Your task to perform on an android device: move a message to another label in the gmail app Image 0: 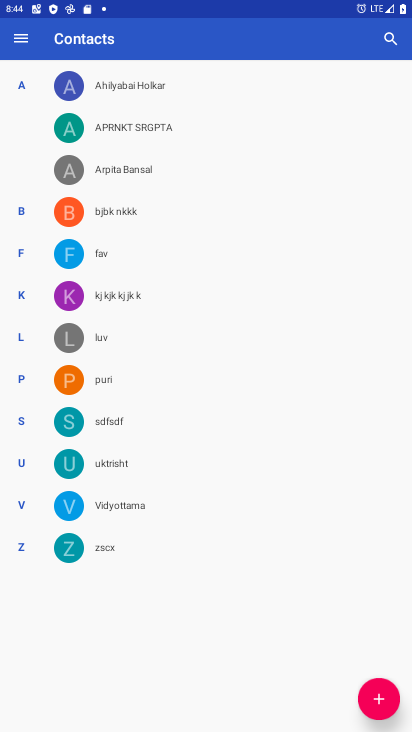
Step 0: press back button
Your task to perform on an android device: move a message to another label in the gmail app Image 1: 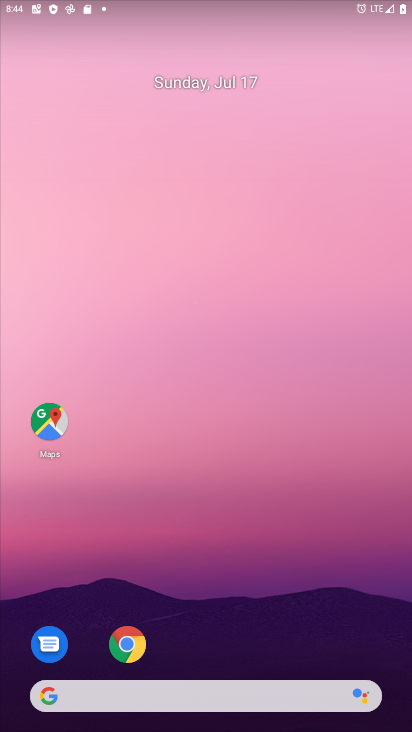
Step 1: drag from (209, 621) to (254, 186)
Your task to perform on an android device: move a message to another label in the gmail app Image 2: 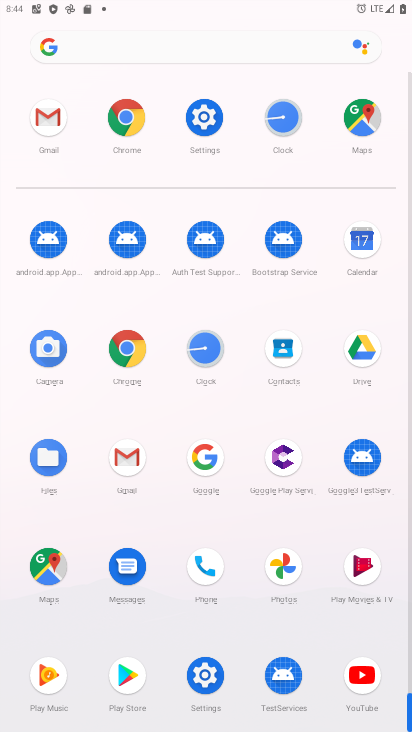
Step 2: drag from (138, 157) to (138, 62)
Your task to perform on an android device: move a message to another label in the gmail app Image 3: 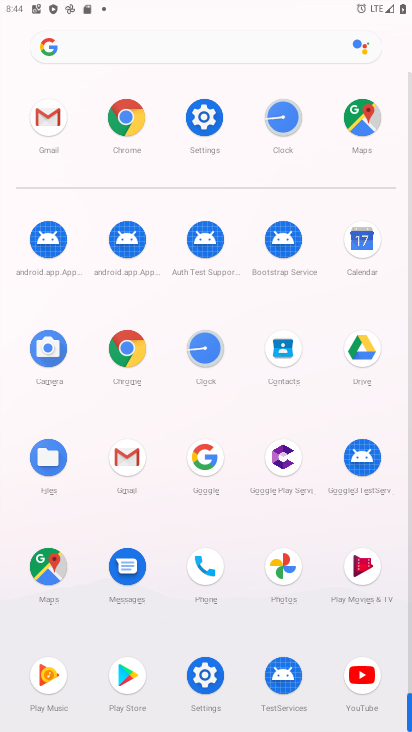
Step 3: click (123, 454)
Your task to perform on an android device: move a message to another label in the gmail app Image 4: 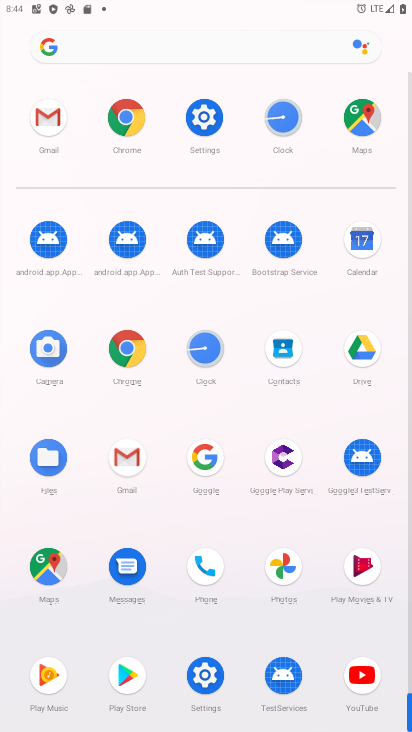
Step 4: click (123, 464)
Your task to perform on an android device: move a message to another label in the gmail app Image 5: 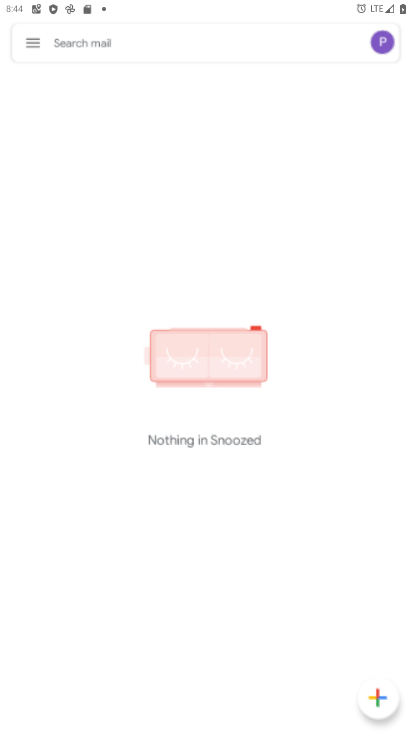
Step 5: click (130, 461)
Your task to perform on an android device: move a message to another label in the gmail app Image 6: 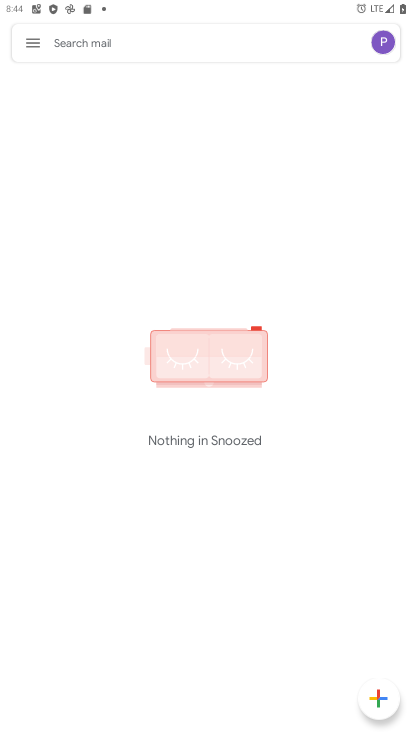
Step 6: click (131, 463)
Your task to perform on an android device: move a message to another label in the gmail app Image 7: 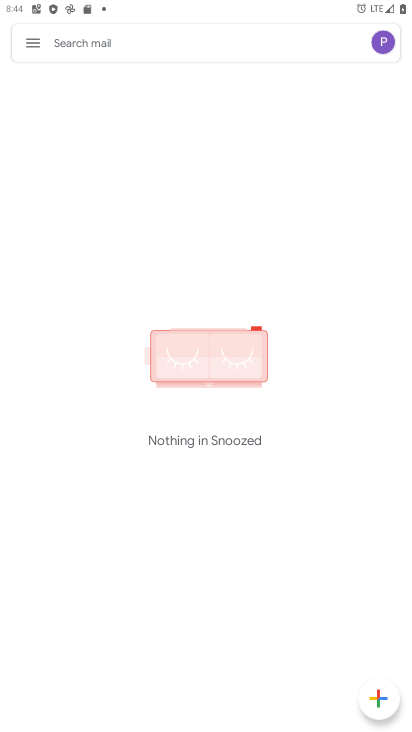
Step 7: click (132, 464)
Your task to perform on an android device: move a message to another label in the gmail app Image 8: 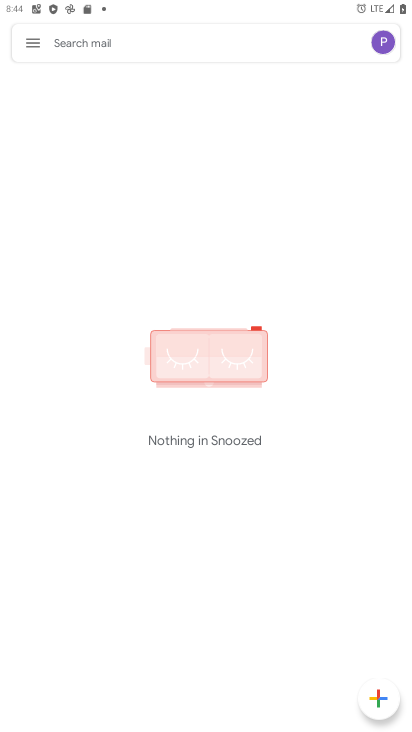
Step 8: click (27, 42)
Your task to perform on an android device: move a message to another label in the gmail app Image 9: 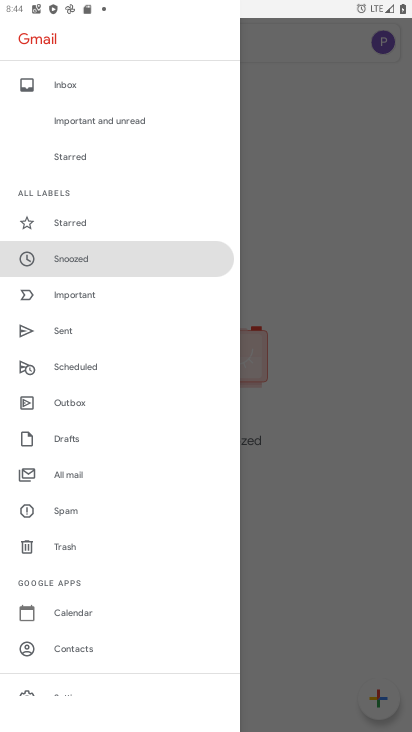
Step 9: click (67, 468)
Your task to perform on an android device: move a message to another label in the gmail app Image 10: 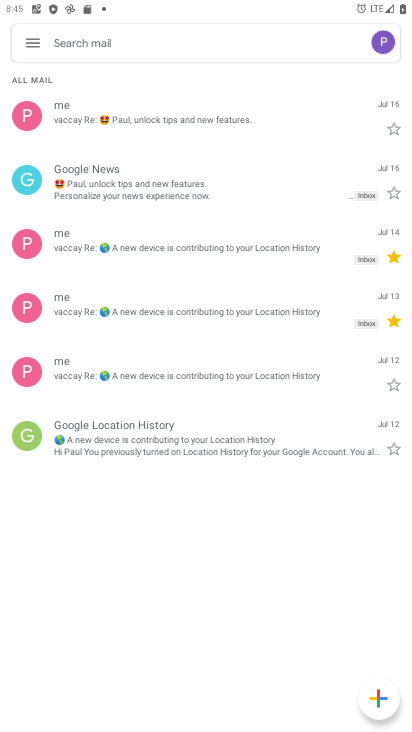
Step 10: click (88, 123)
Your task to perform on an android device: move a message to another label in the gmail app Image 11: 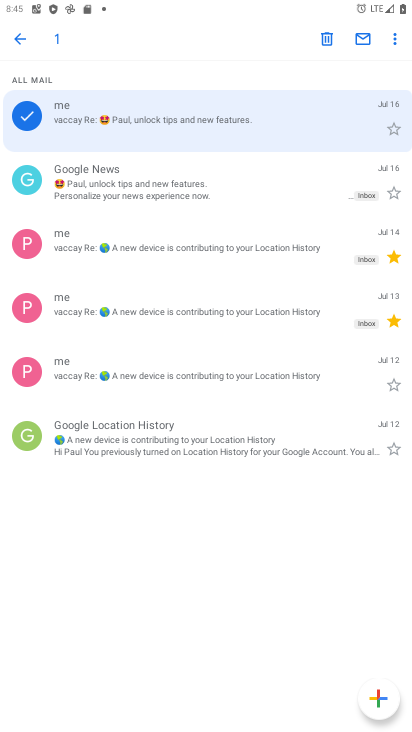
Step 11: click (394, 34)
Your task to perform on an android device: move a message to another label in the gmail app Image 12: 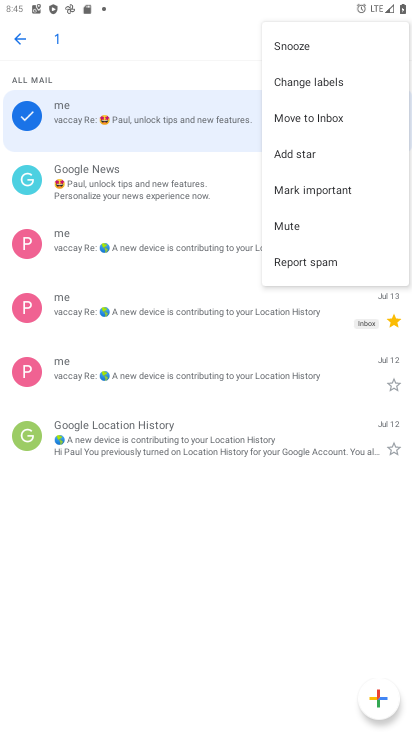
Step 12: click (314, 77)
Your task to perform on an android device: move a message to another label in the gmail app Image 13: 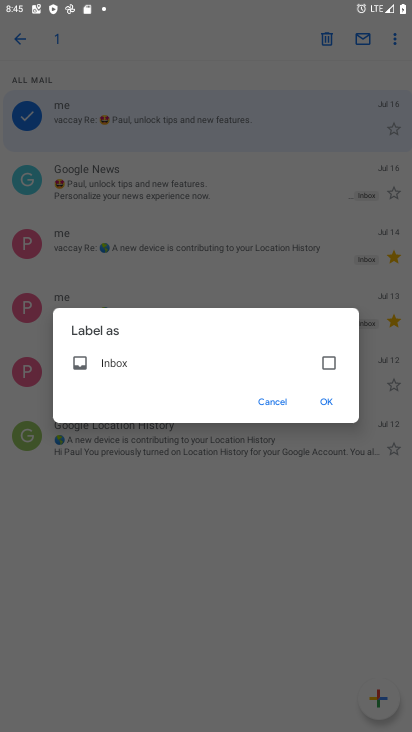
Step 13: click (333, 404)
Your task to perform on an android device: move a message to another label in the gmail app Image 14: 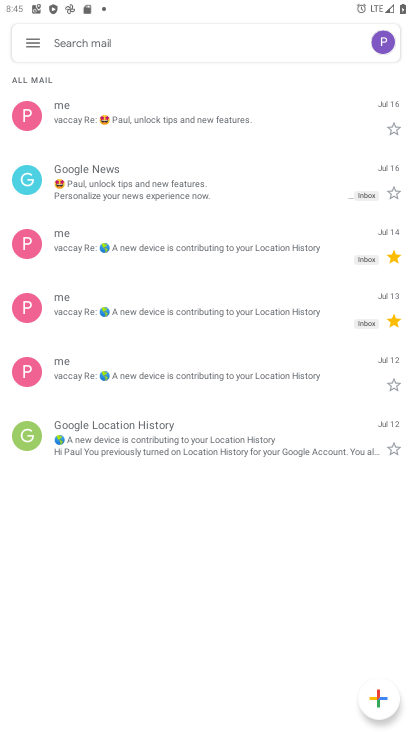
Step 14: task complete